Your task to perform on an android device: Go to battery settings Image 0: 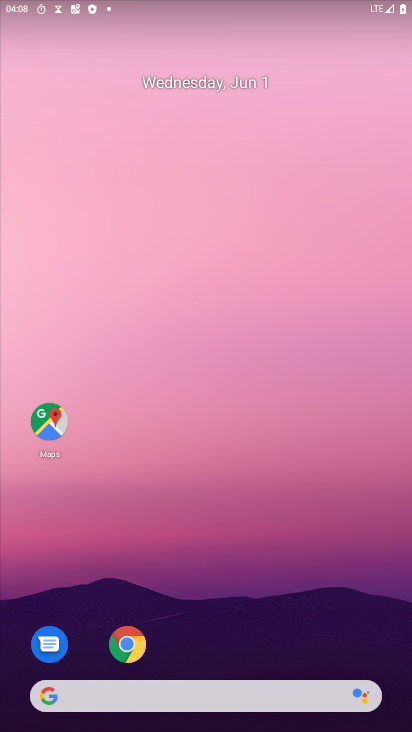
Step 0: drag from (253, 635) to (244, 139)
Your task to perform on an android device: Go to battery settings Image 1: 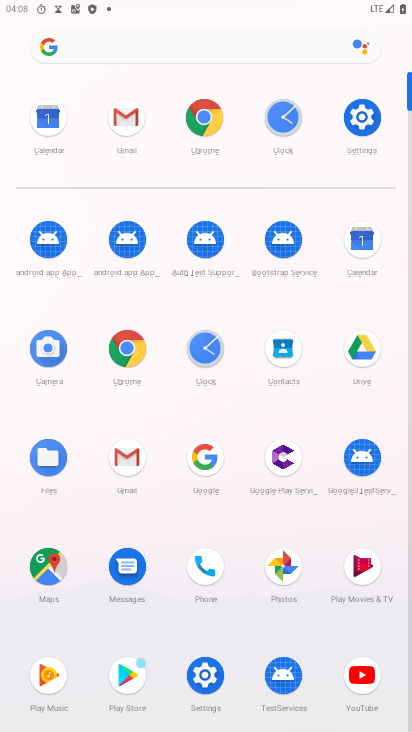
Step 1: click (365, 115)
Your task to perform on an android device: Go to battery settings Image 2: 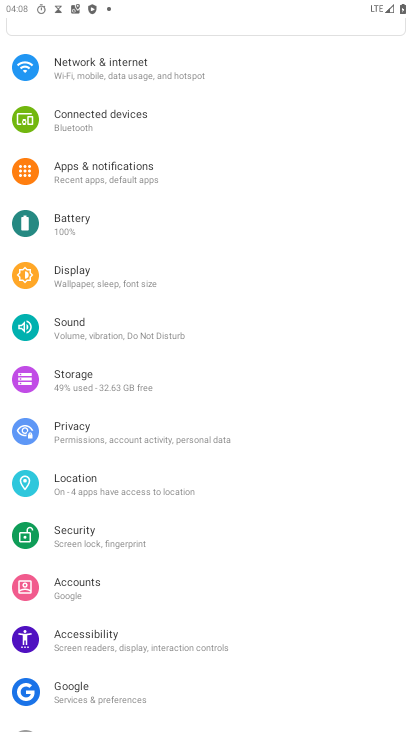
Step 2: click (97, 227)
Your task to perform on an android device: Go to battery settings Image 3: 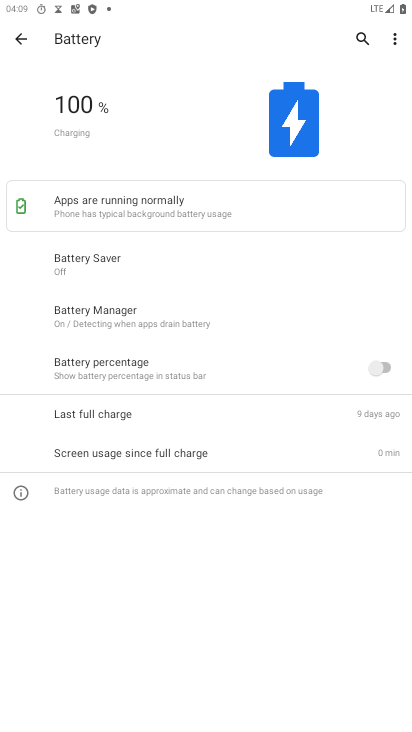
Step 3: task complete